Your task to perform on an android device: Open Google Chrome Image 0: 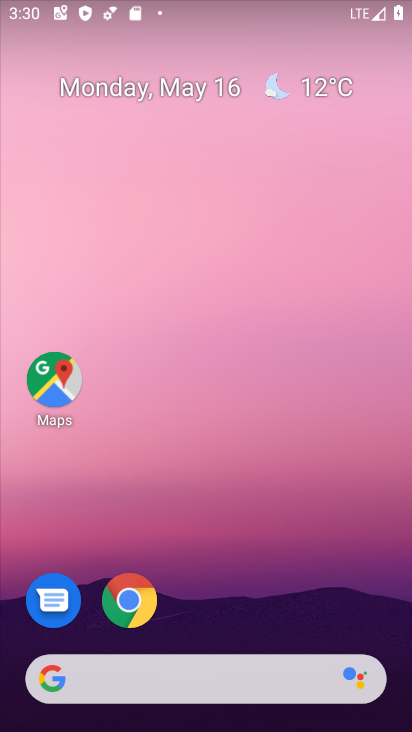
Step 0: click (138, 596)
Your task to perform on an android device: Open Google Chrome Image 1: 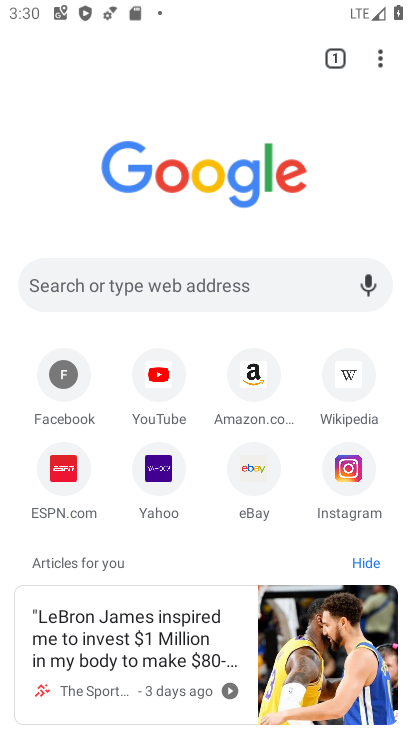
Step 1: task complete